Your task to perform on an android device: Go to Yahoo.com Image 0: 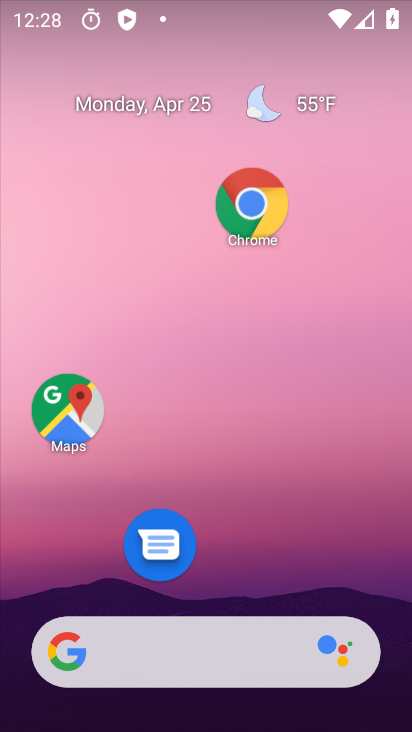
Step 0: drag from (278, 693) to (234, 219)
Your task to perform on an android device: Go to Yahoo.com Image 1: 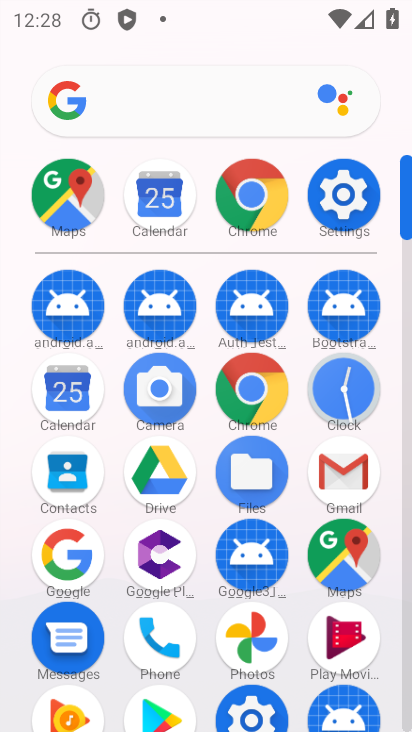
Step 1: click (260, 192)
Your task to perform on an android device: Go to Yahoo.com Image 2: 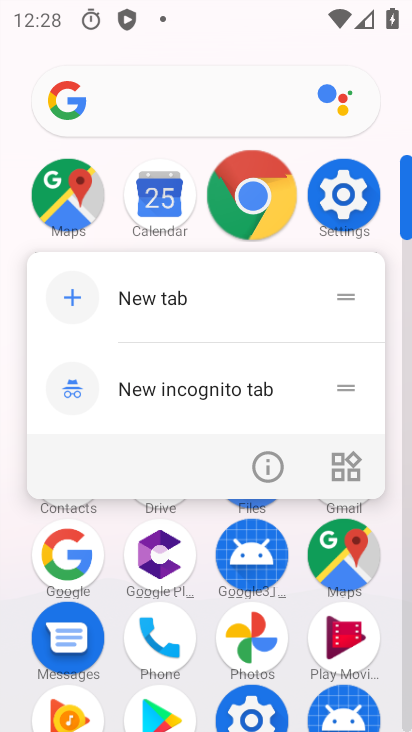
Step 2: click (254, 198)
Your task to perform on an android device: Go to Yahoo.com Image 3: 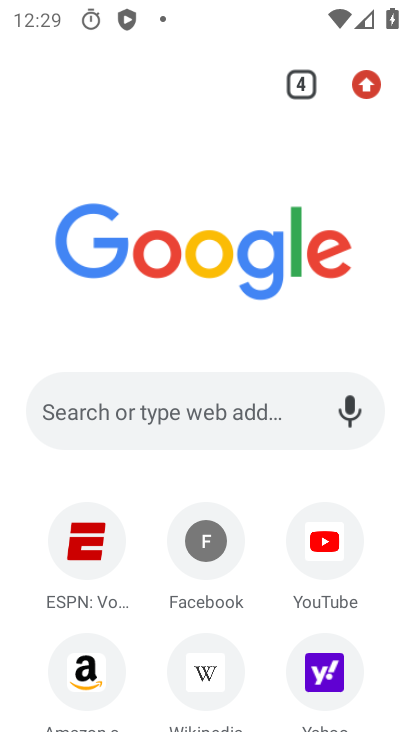
Step 3: click (324, 662)
Your task to perform on an android device: Go to Yahoo.com Image 4: 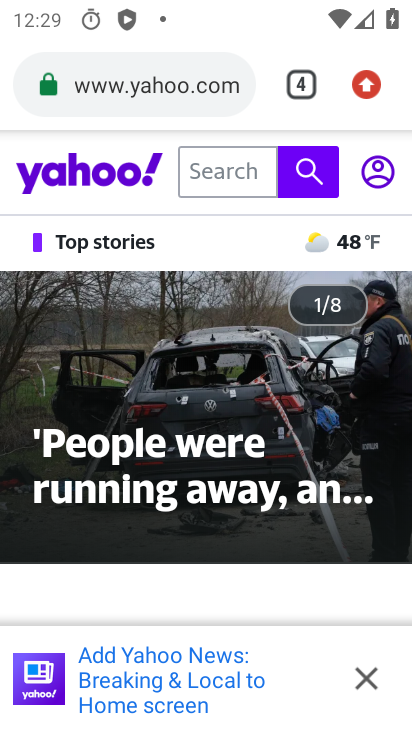
Step 4: click (359, 670)
Your task to perform on an android device: Go to Yahoo.com Image 5: 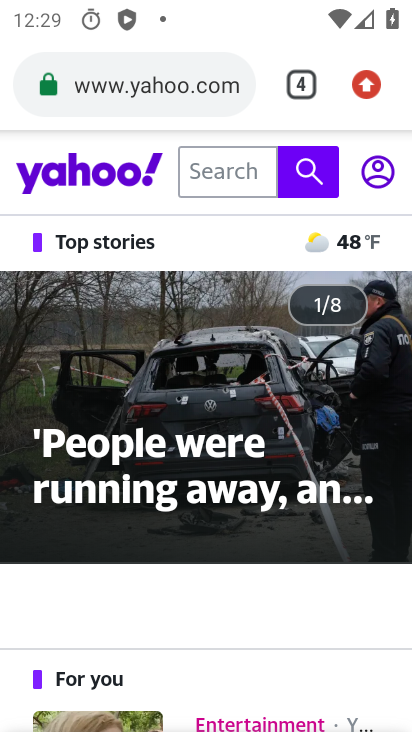
Step 5: task complete